Your task to perform on an android device: Search for pizza restaurants on Maps Image 0: 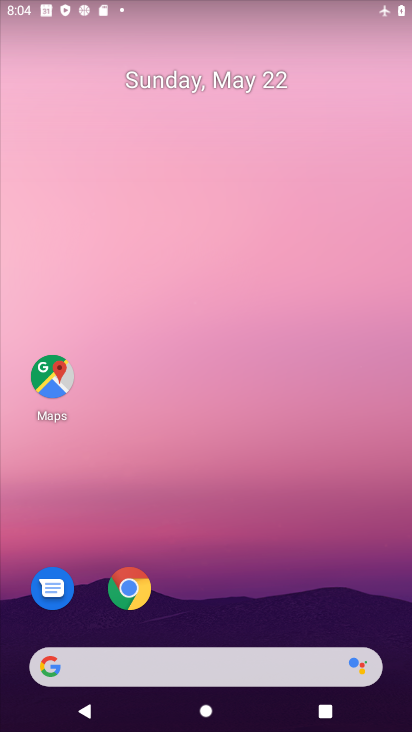
Step 0: click (50, 380)
Your task to perform on an android device: Search for pizza restaurants on Maps Image 1: 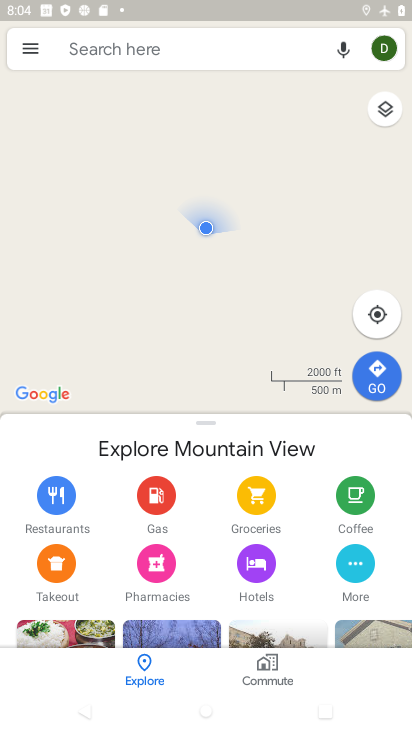
Step 1: click (128, 43)
Your task to perform on an android device: Search for pizza restaurants on Maps Image 2: 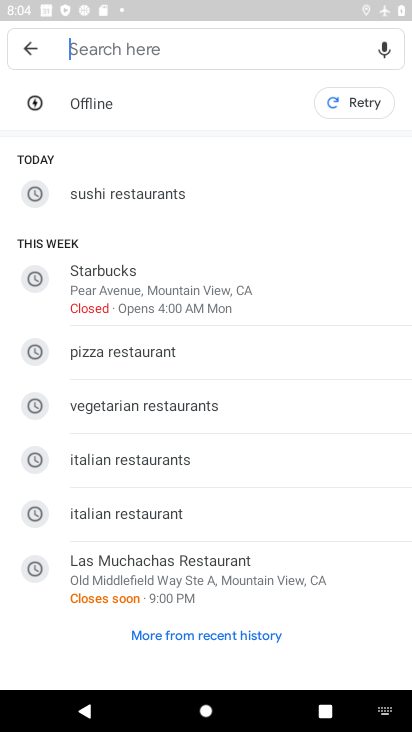
Step 2: type "pizza"
Your task to perform on an android device: Search for pizza restaurants on Maps Image 3: 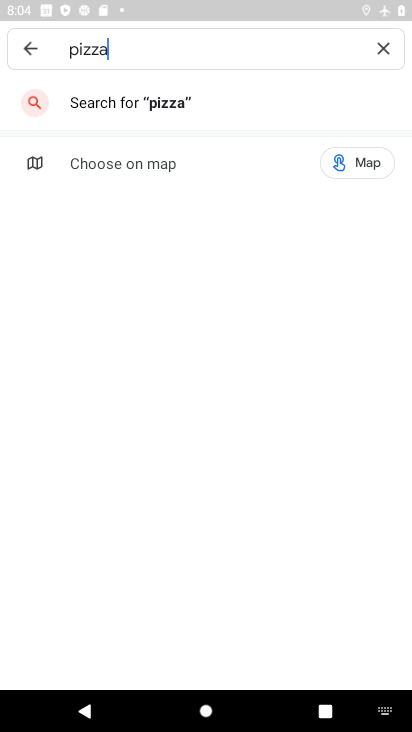
Step 3: click (171, 103)
Your task to perform on an android device: Search for pizza restaurants on Maps Image 4: 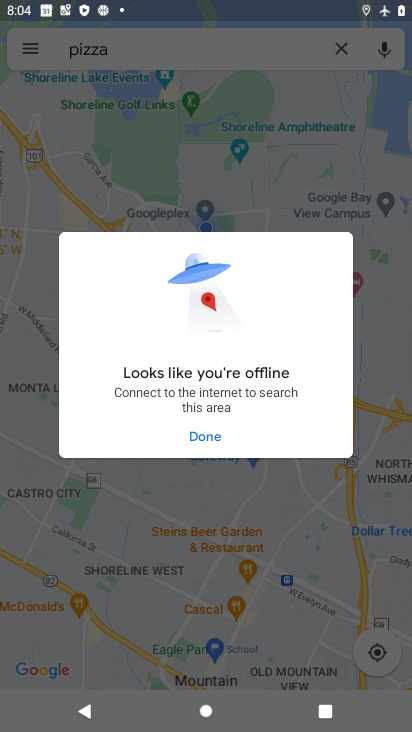
Step 4: task complete